Your task to perform on an android device: open app "Google Duo" (install if not already installed) Image 0: 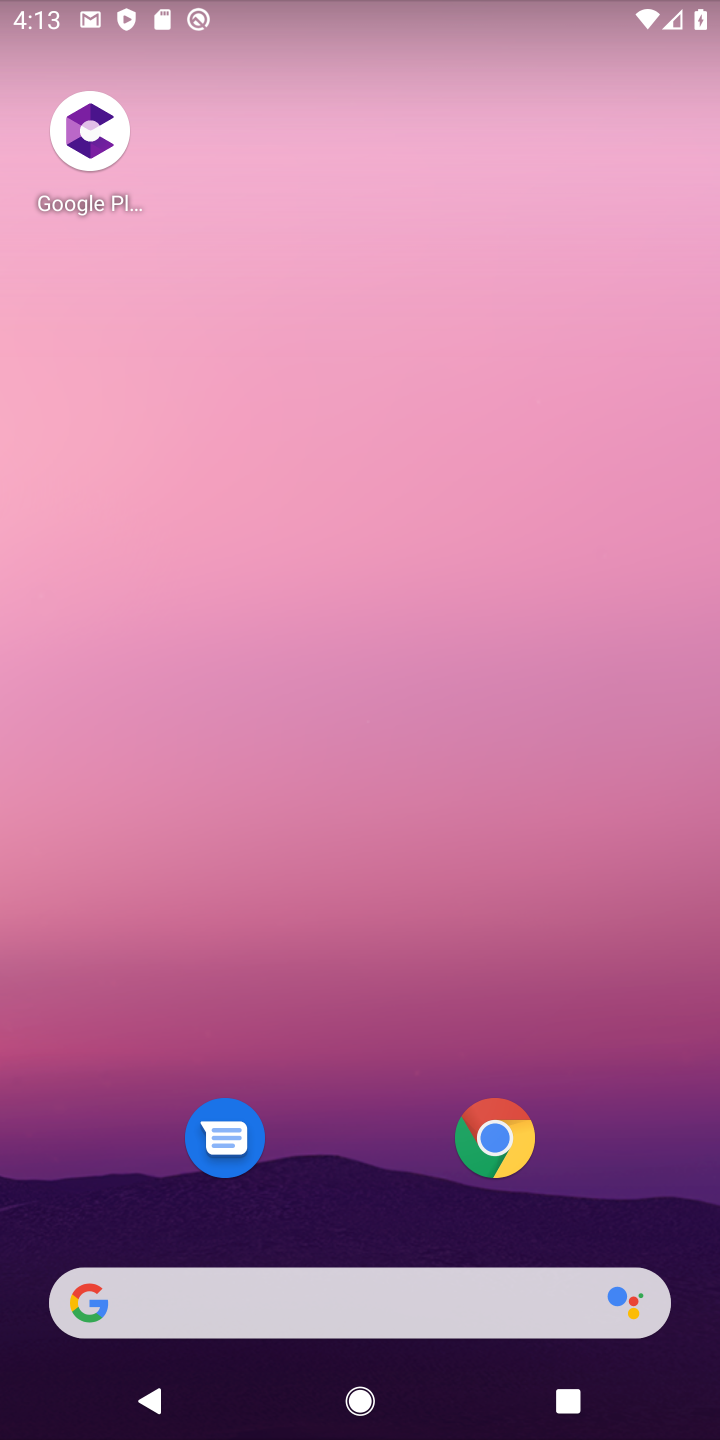
Step 0: drag from (337, 1268) to (381, 489)
Your task to perform on an android device: open app "Google Duo" (install if not already installed) Image 1: 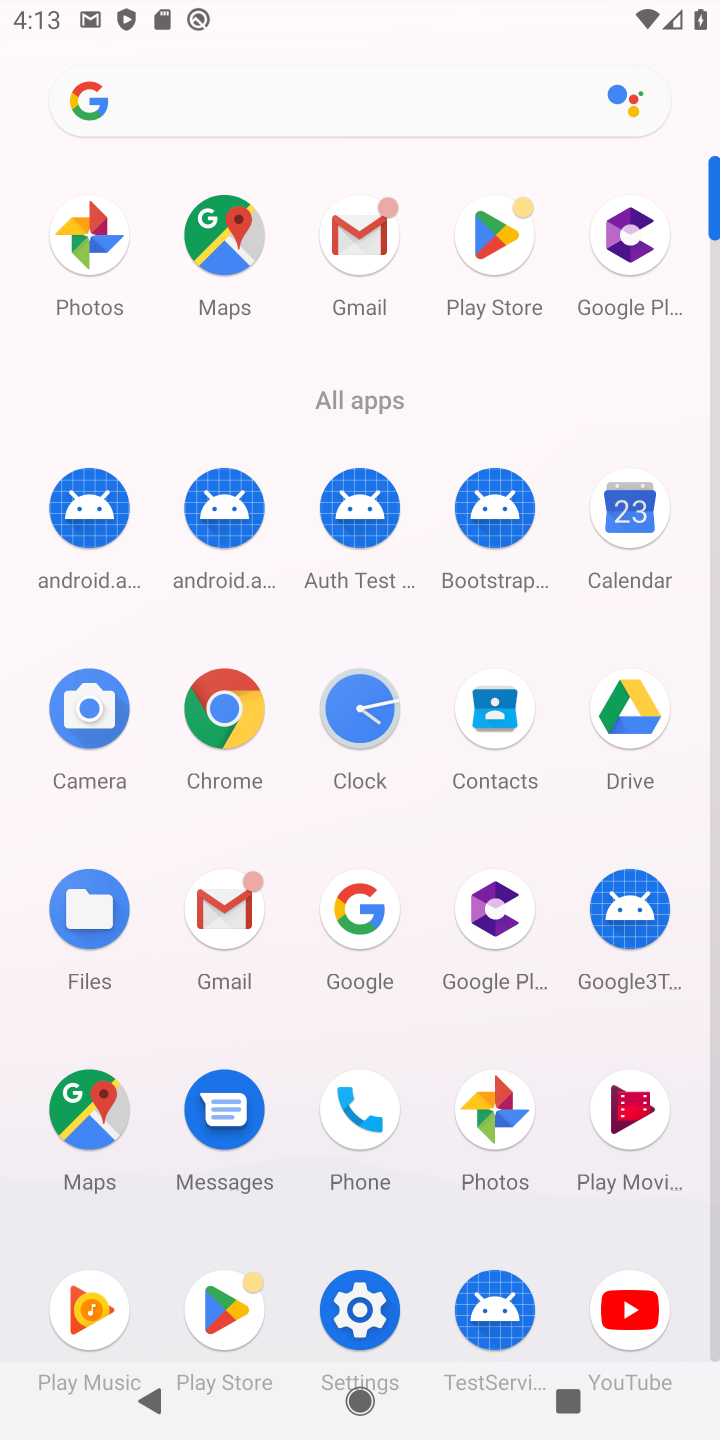
Step 1: click (210, 1293)
Your task to perform on an android device: open app "Google Duo" (install if not already installed) Image 2: 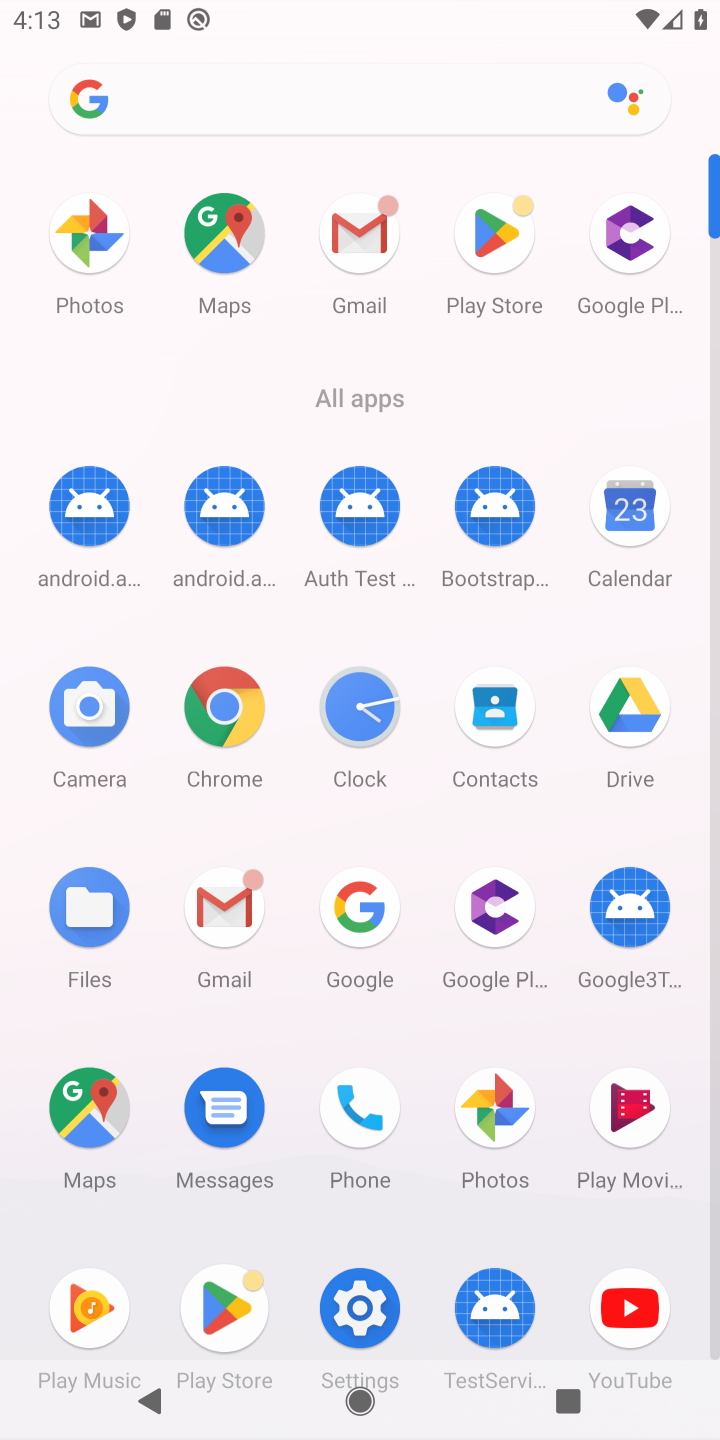
Step 2: click (503, 239)
Your task to perform on an android device: open app "Google Duo" (install if not already installed) Image 3: 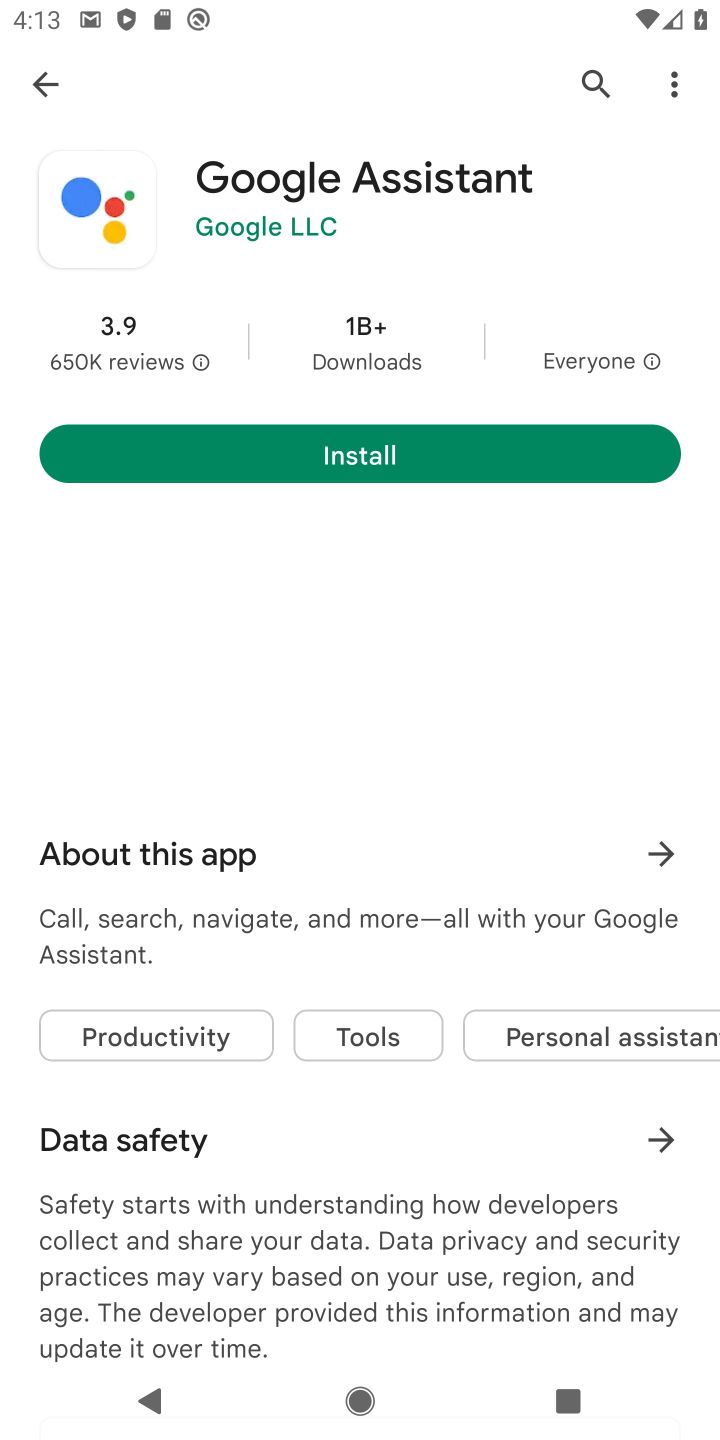
Step 3: click (589, 82)
Your task to perform on an android device: open app "Google Duo" (install if not already installed) Image 4: 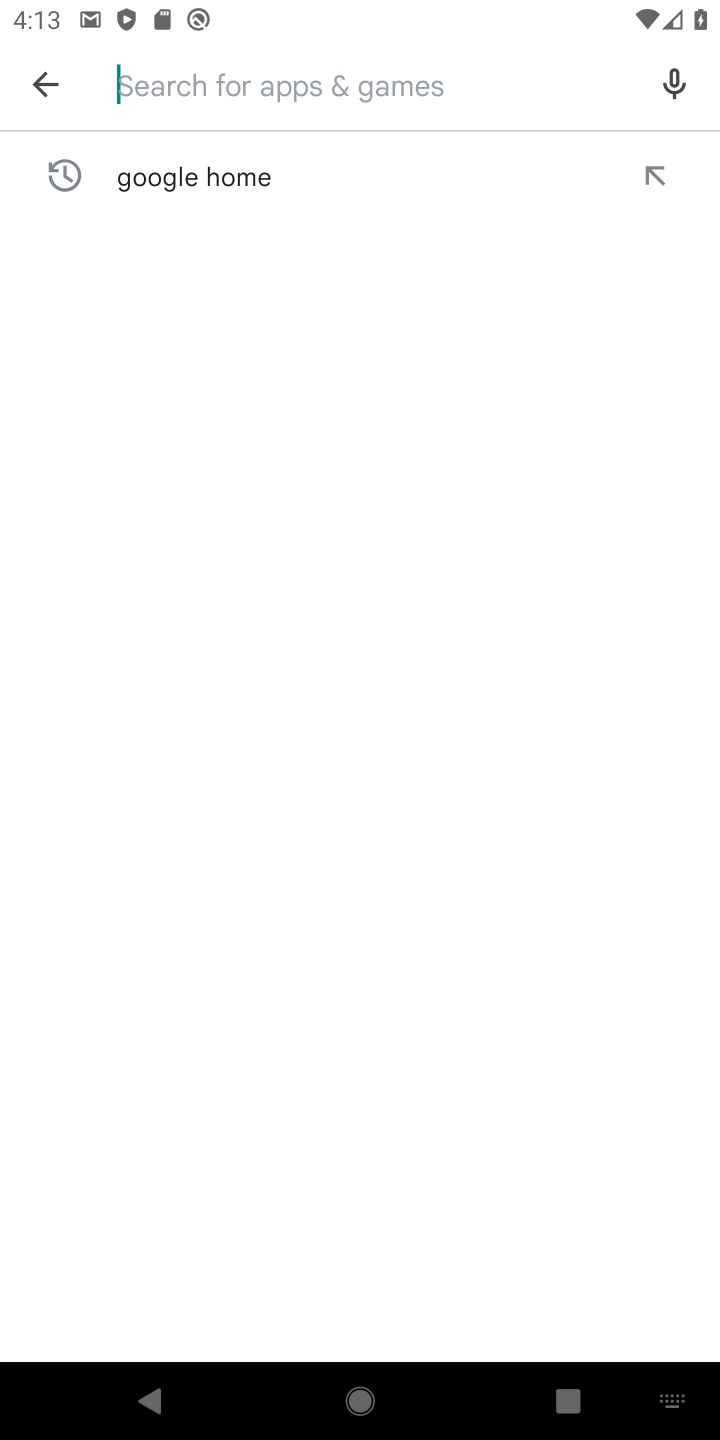
Step 4: click (222, 71)
Your task to perform on an android device: open app "Google Duo" (install if not already installed) Image 5: 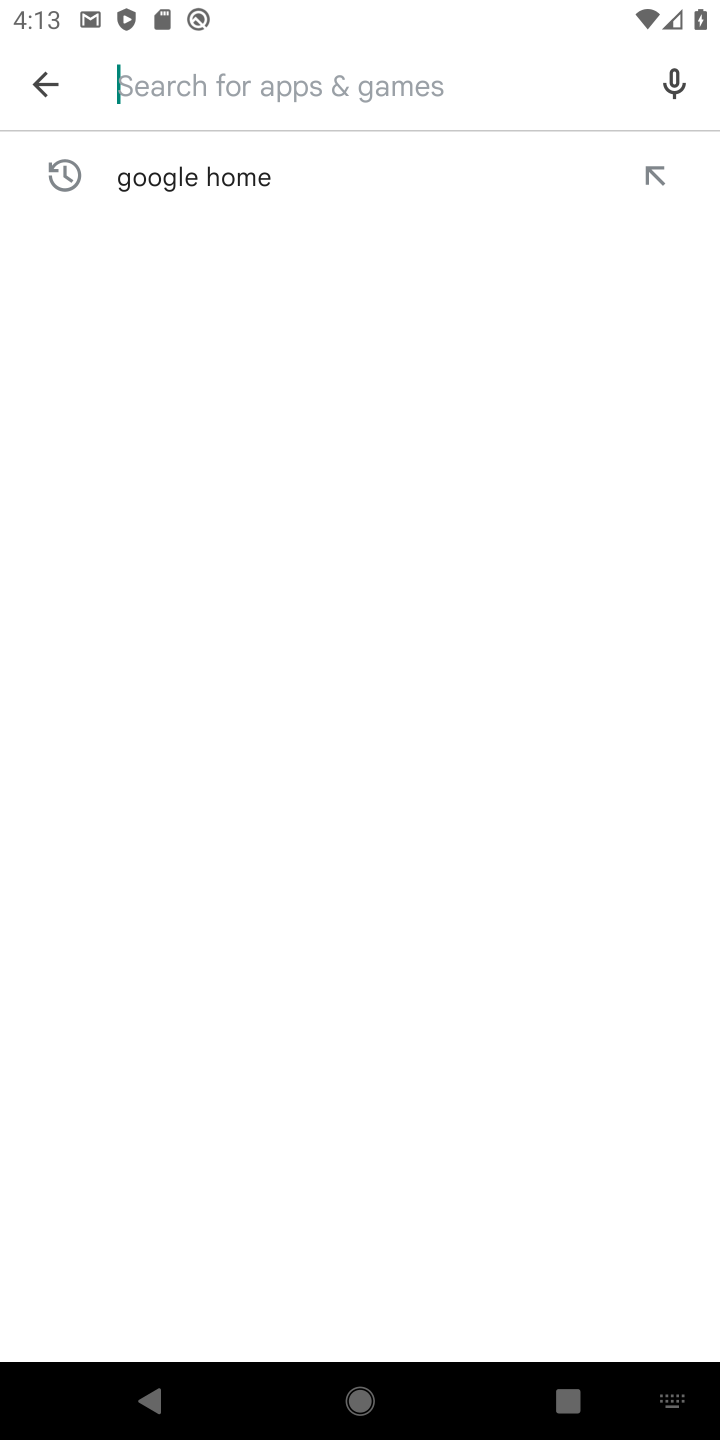
Step 5: type "Google Duo"
Your task to perform on an android device: open app "Google Duo" (install if not already installed) Image 6: 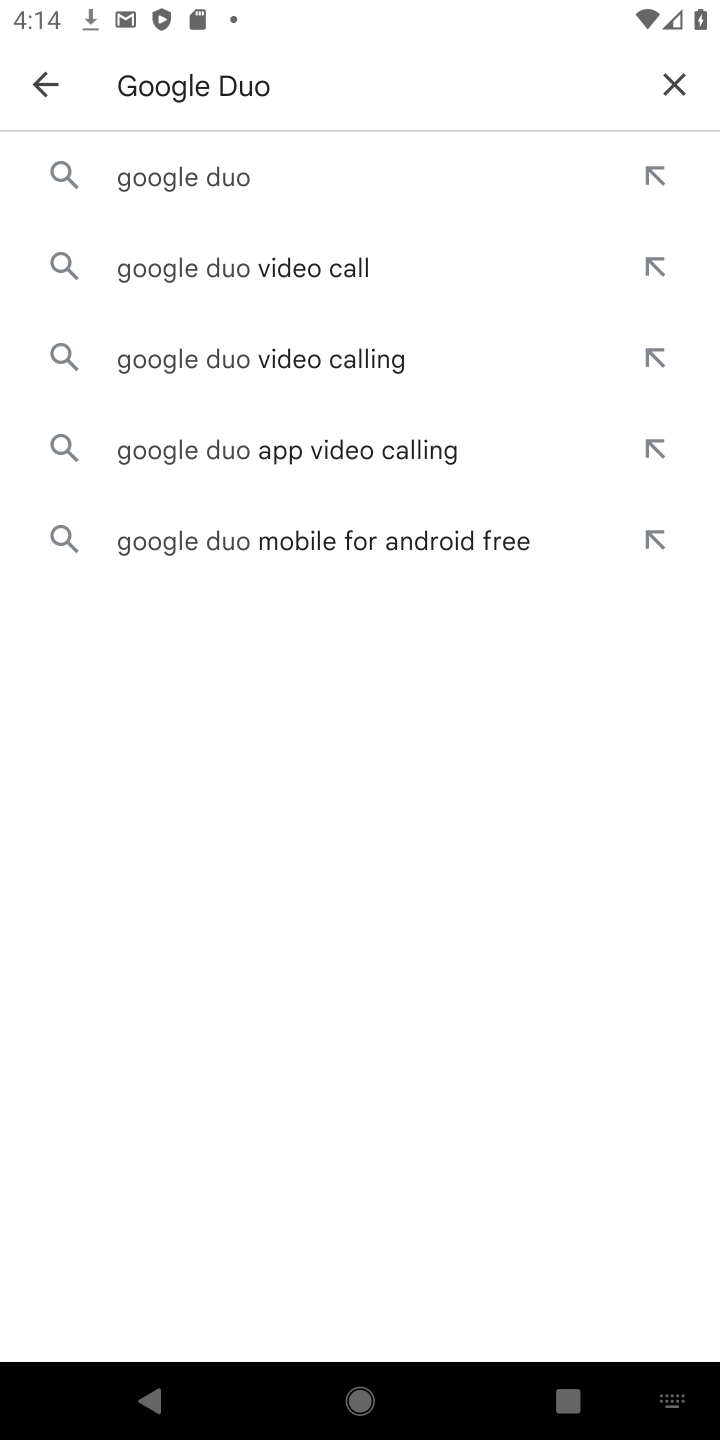
Step 6: click (215, 178)
Your task to perform on an android device: open app "Google Duo" (install if not already installed) Image 7: 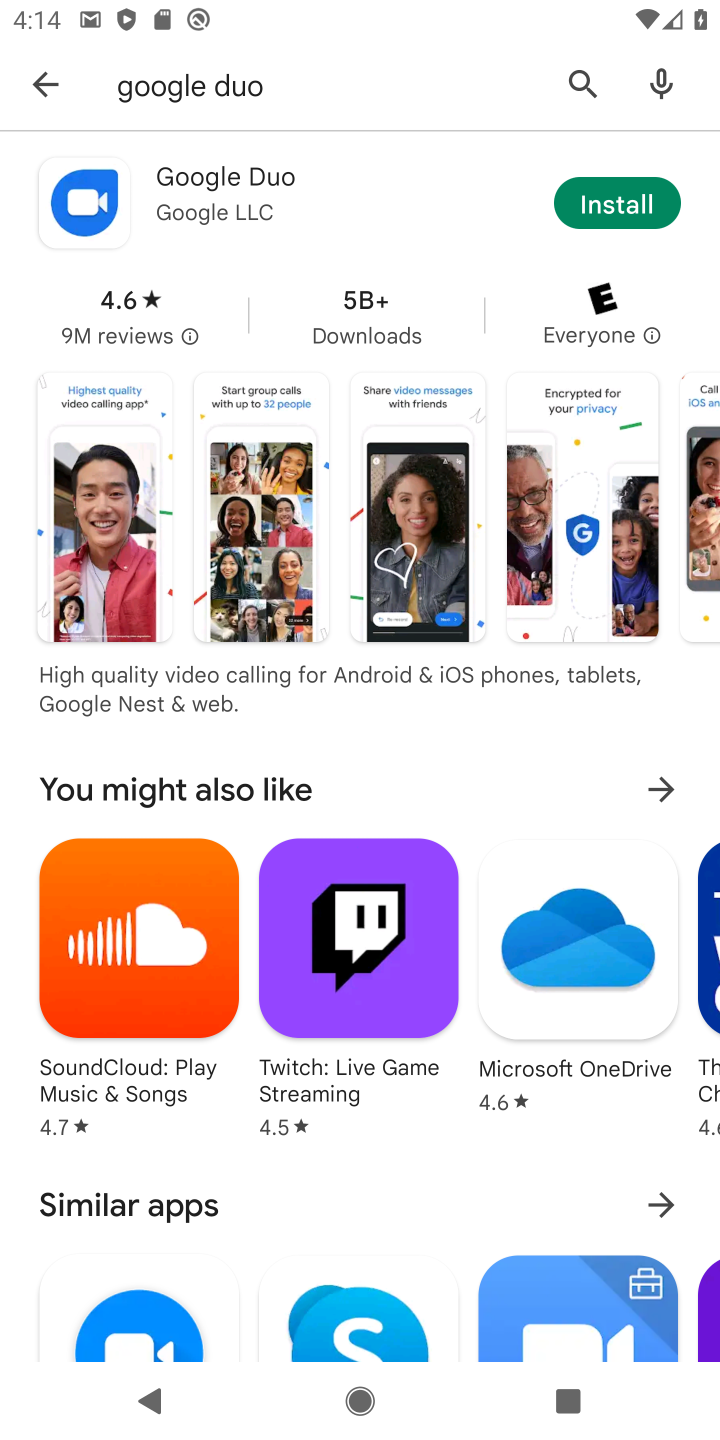
Step 7: click (587, 199)
Your task to perform on an android device: open app "Google Duo" (install if not already installed) Image 8: 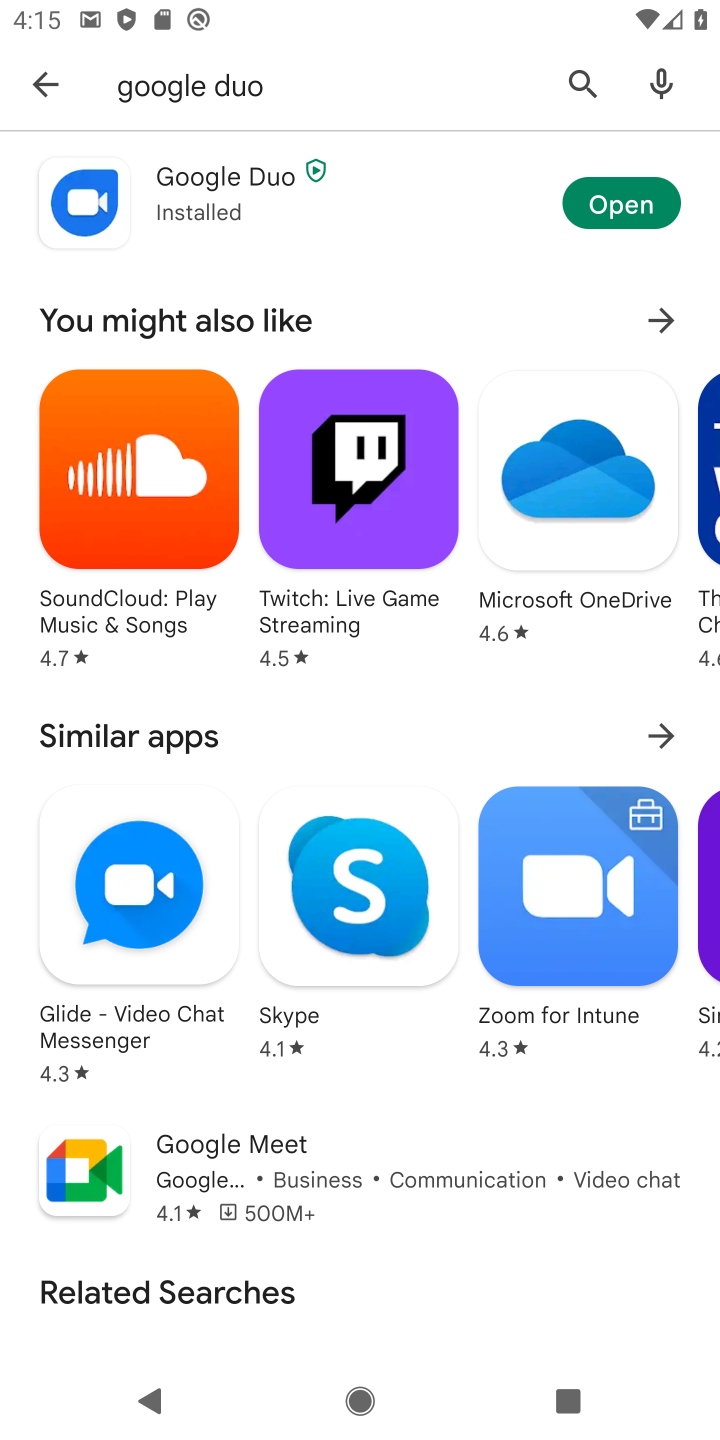
Step 8: click (609, 210)
Your task to perform on an android device: open app "Google Duo" (install if not already installed) Image 9: 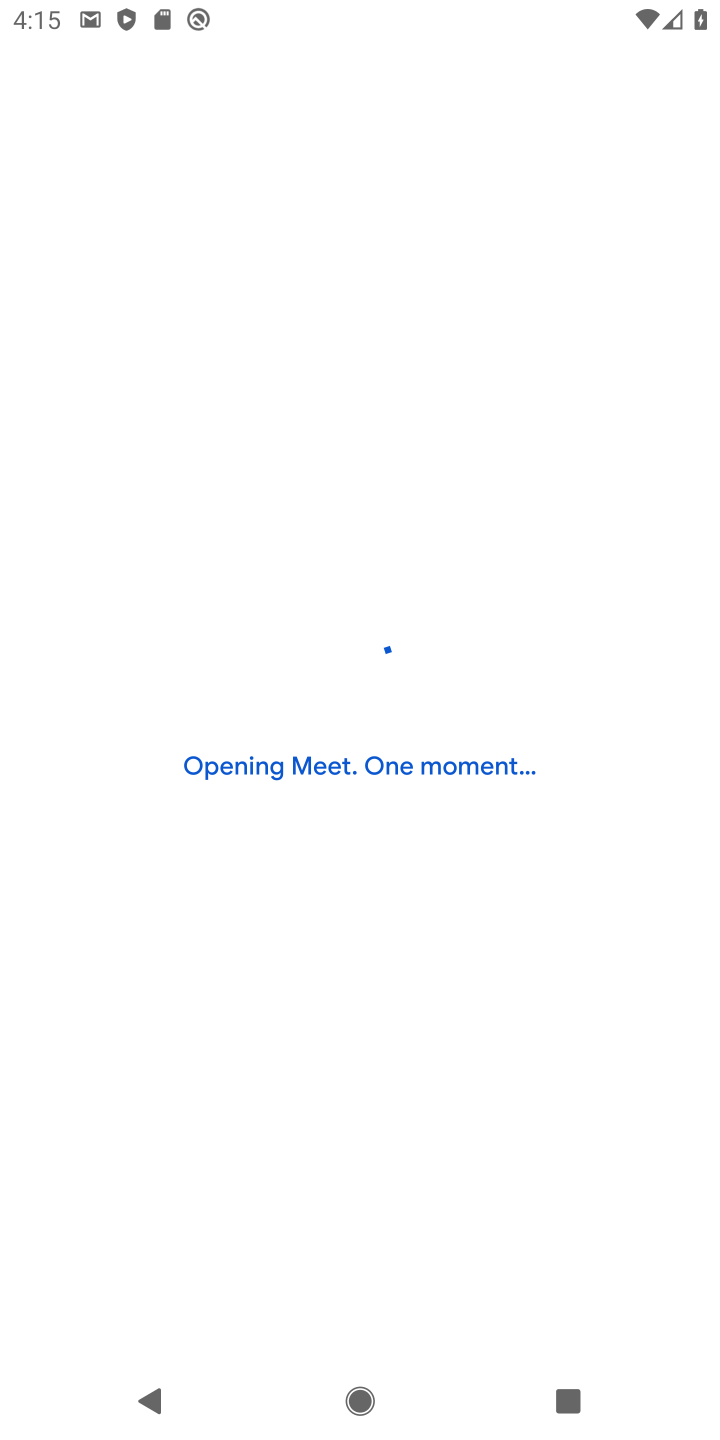
Step 9: task complete